Your task to perform on an android device: turn on the 12-hour format for clock Image 0: 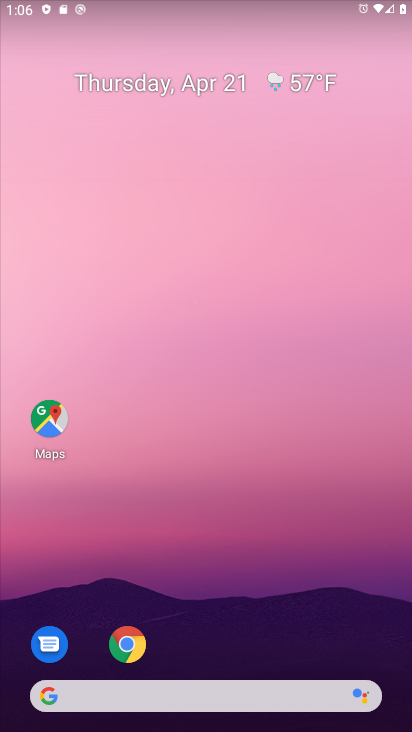
Step 0: drag from (213, 670) to (126, 73)
Your task to perform on an android device: turn on the 12-hour format for clock Image 1: 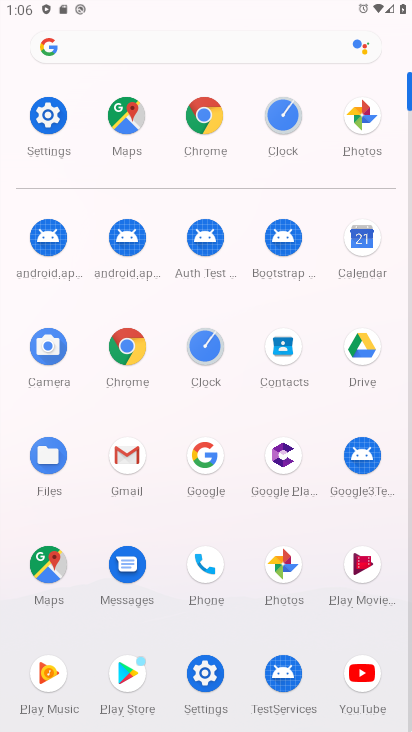
Step 1: click (211, 350)
Your task to perform on an android device: turn on the 12-hour format for clock Image 2: 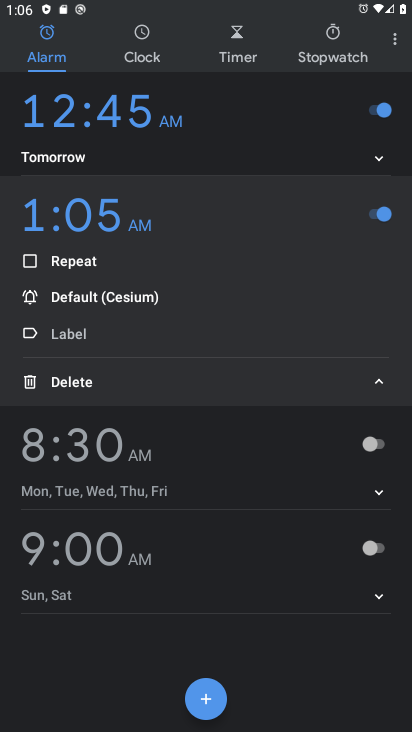
Step 2: click (391, 54)
Your task to perform on an android device: turn on the 12-hour format for clock Image 3: 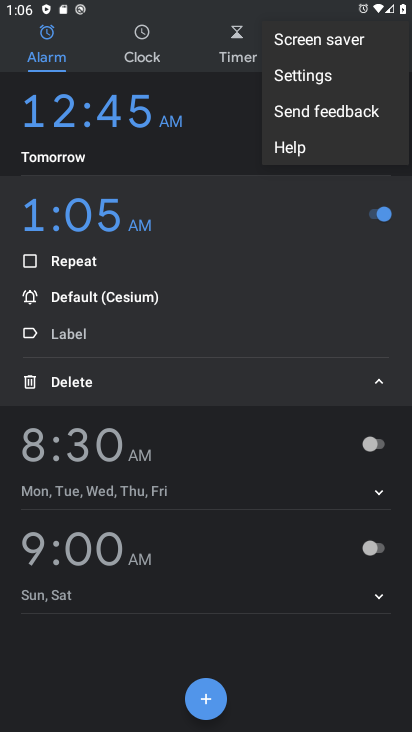
Step 3: click (336, 83)
Your task to perform on an android device: turn on the 12-hour format for clock Image 4: 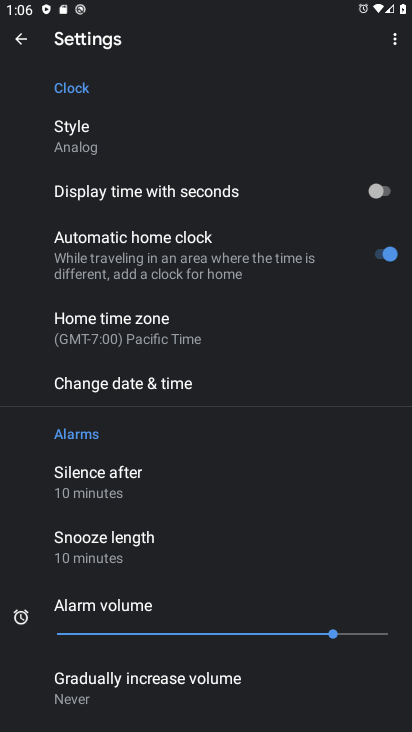
Step 4: click (126, 388)
Your task to perform on an android device: turn on the 12-hour format for clock Image 5: 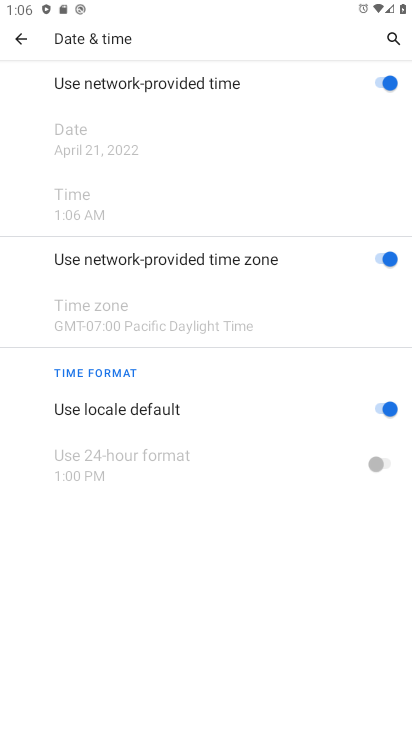
Step 5: task complete